Your task to perform on an android device: turn pop-ups off in chrome Image 0: 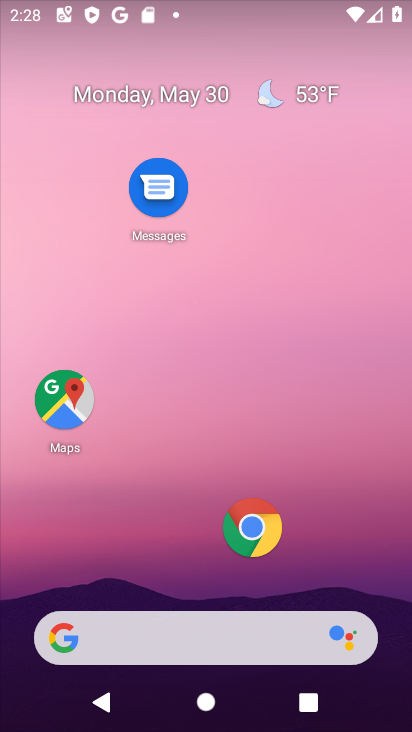
Step 0: drag from (191, 551) to (344, 79)
Your task to perform on an android device: turn pop-ups off in chrome Image 1: 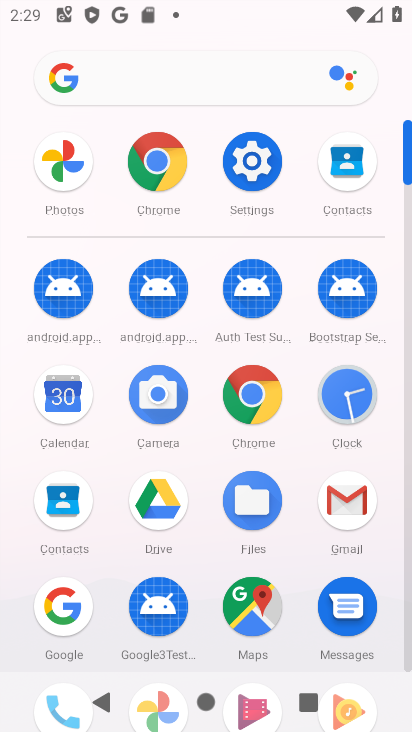
Step 1: click (261, 416)
Your task to perform on an android device: turn pop-ups off in chrome Image 2: 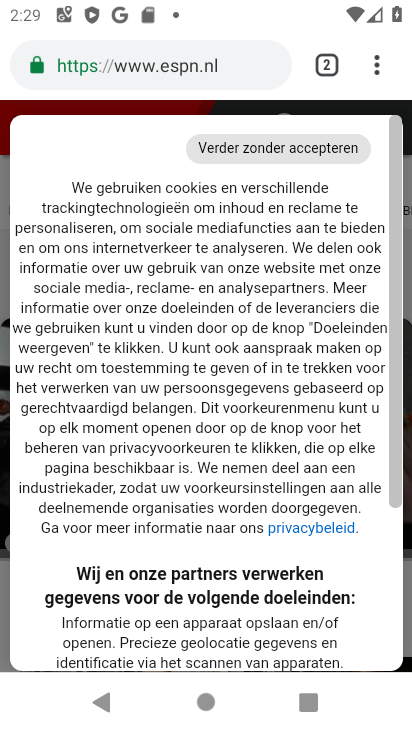
Step 2: click (379, 60)
Your task to perform on an android device: turn pop-ups off in chrome Image 3: 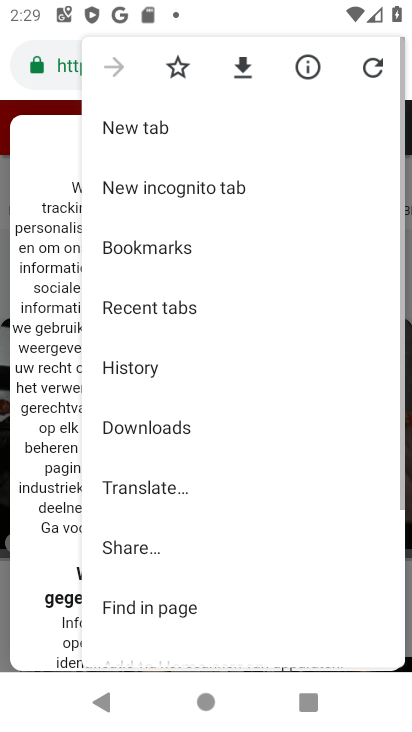
Step 3: click (378, 64)
Your task to perform on an android device: turn pop-ups off in chrome Image 4: 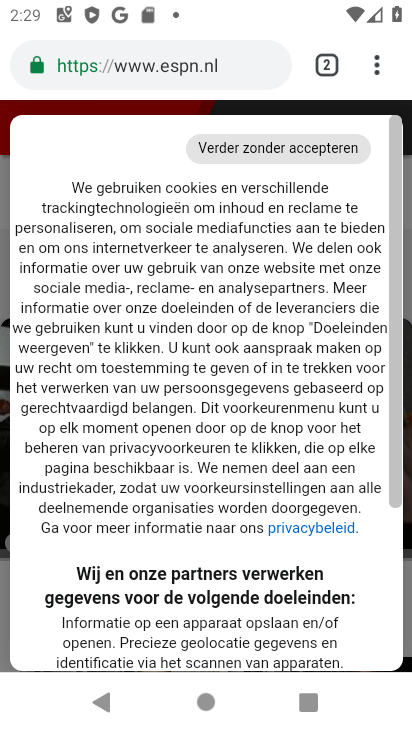
Step 4: click (380, 68)
Your task to perform on an android device: turn pop-ups off in chrome Image 5: 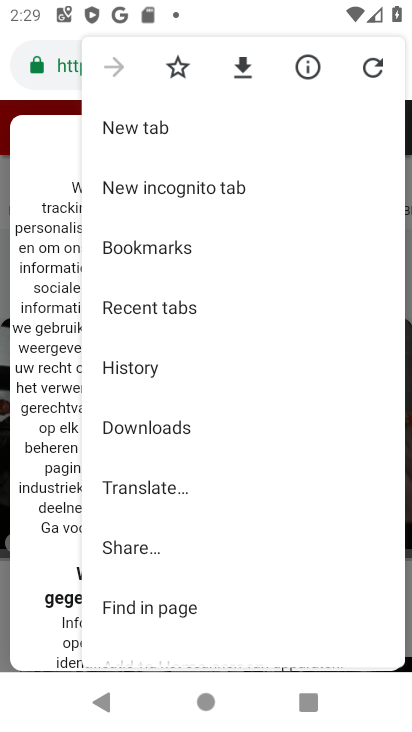
Step 5: drag from (184, 517) to (270, 150)
Your task to perform on an android device: turn pop-ups off in chrome Image 6: 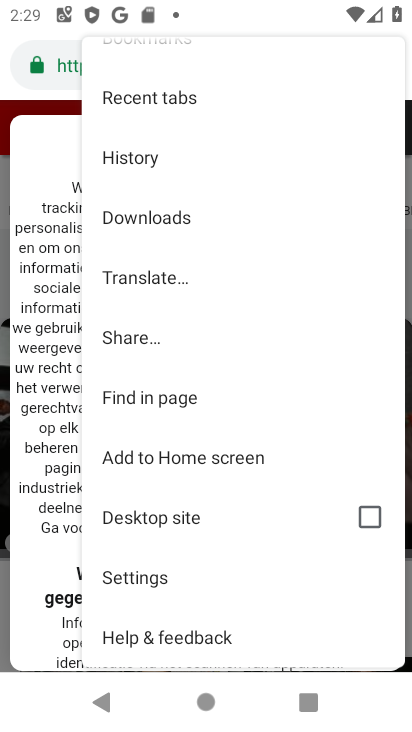
Step 6: click (189, 585)
Your task to perform on an android device: turn pop-ups off in chrome Image 7: 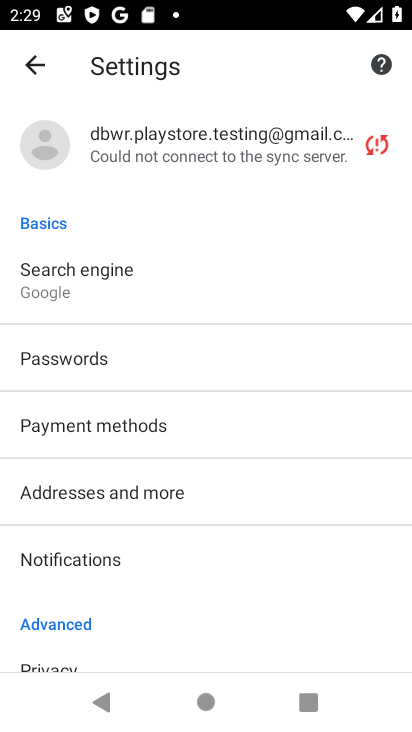
Step 7: drag from (163, 584) to (235, 257)
Your task to perform on an android device: turn pop-ups off in chrome Image 8: 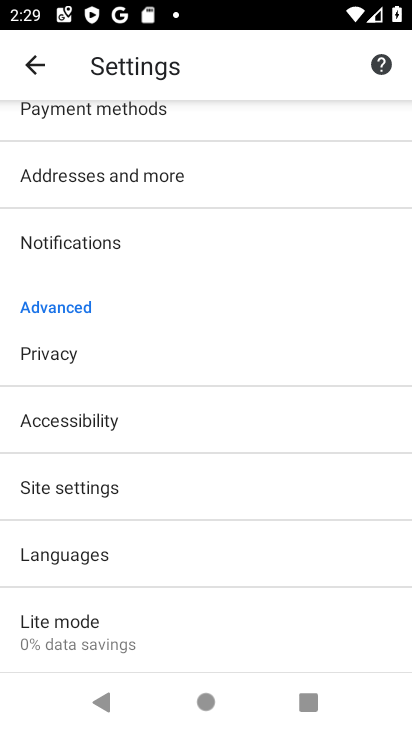
Step 8: click (120, 488)
Your task to perform on an android device: turn pop-ups off in chrome Image 9: 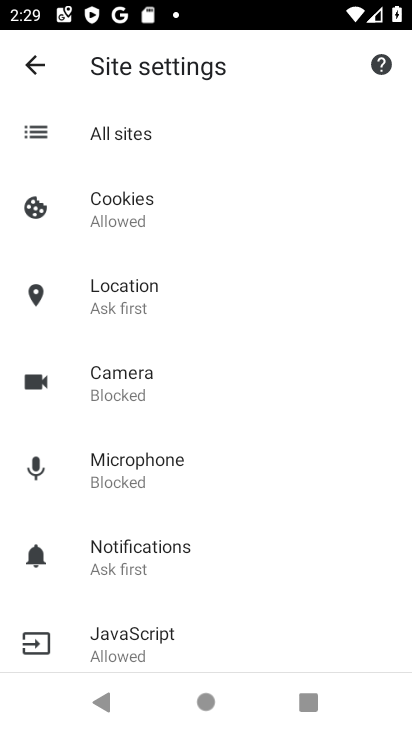
Step 9: drag from (197, 547) to (272, 166)
Your task to perform on an android device: turn pop-ups off in chrome Image 10: 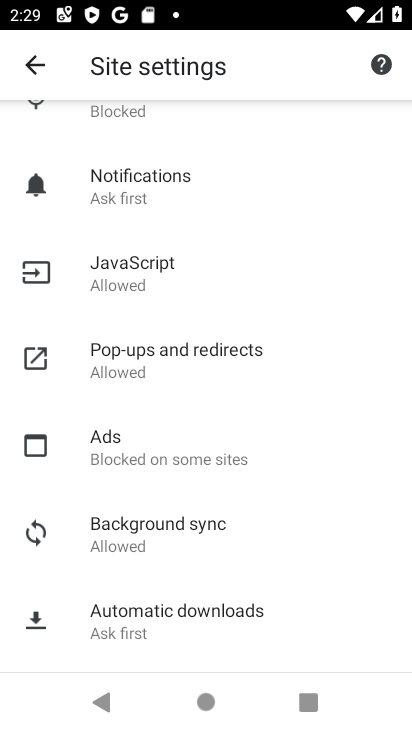
Step 10: click (177, 371)
Your task to perform on an android device: turn pop-ups off in chrome Image 11: 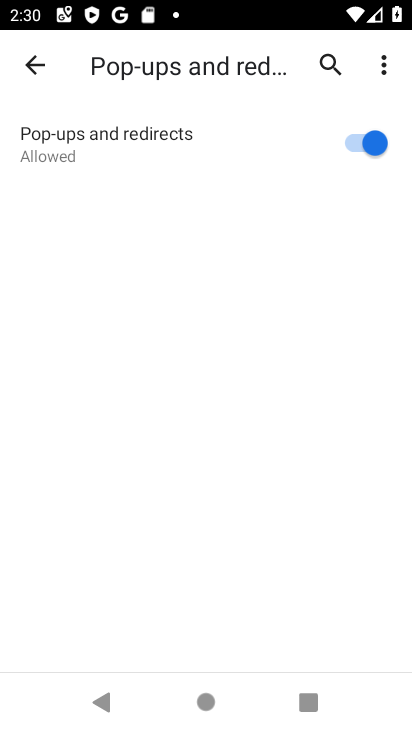
Step 11: click (382, 144)
Your task to perform on an android device: turn pop-ups off in chrome Image 12: 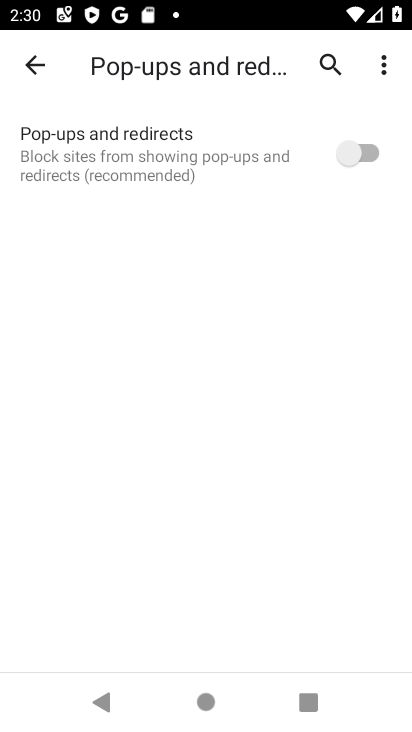
Step 12: task complete